Your task to perform on an android device: Open my contact list Image 0: 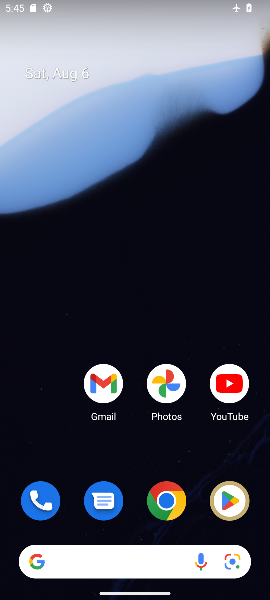
Step 0: drag from (208, 339) to (186, 15)
Your task to perform on an android device: Open my contact list Image 1: 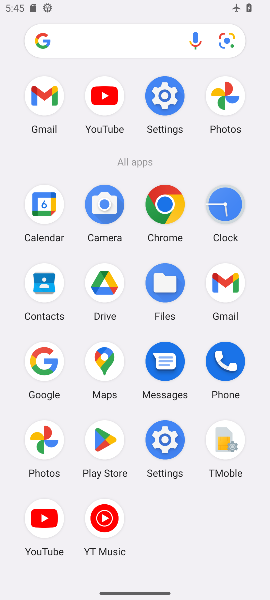
Step 1: click (42, 281)
Your task to perform on an android device: Open my contact list Image 2: 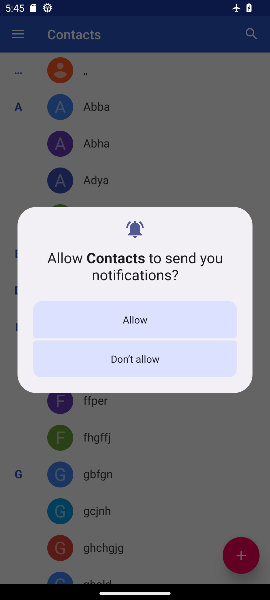
Step 2: click (127, 317)
Your task to perform on an android device: Open my contact list Image 3: 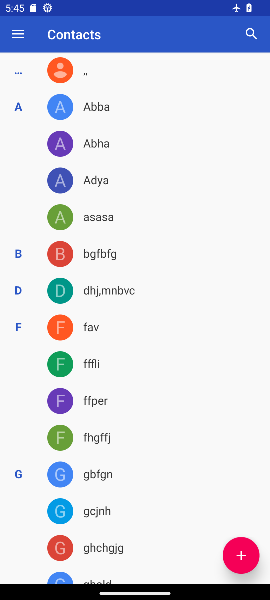
Step 3: task complete